Your task to perform on an android device: allow notifications from all sites in the chrome app Image 0: 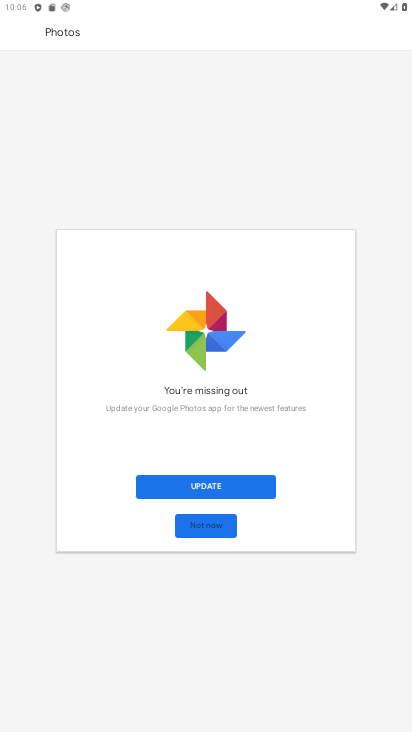
Step 0: press home button
Your task to perform on an android device: allow notifications from all sites in the chrome app Image 1: 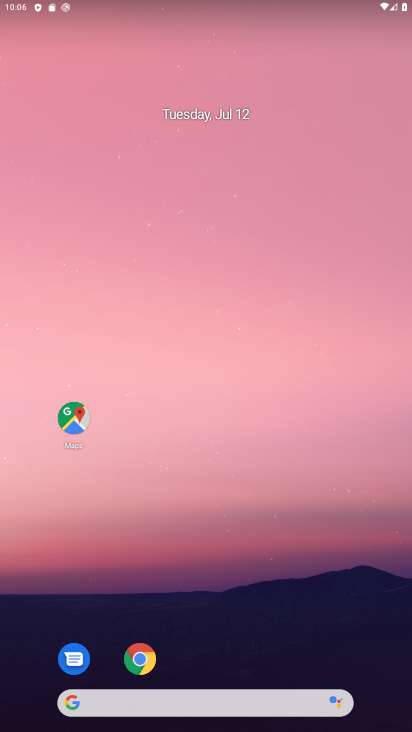
Step 1: click (254, 131)
Your task to perform on an android device: allow notifications from all sites in the chrome app Image 2: 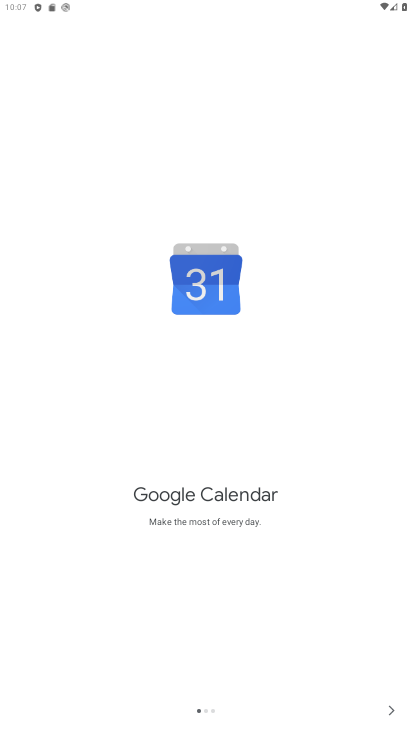
Step 2: press home button
Your task to perform on an android device: allow notifications from all sites in the chrome app Image 3: 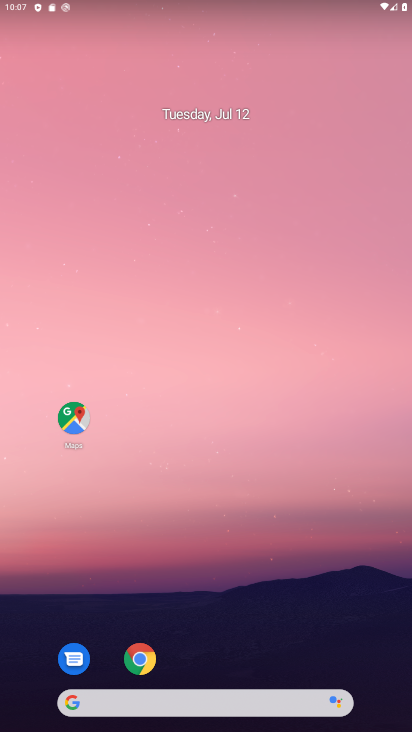
Step 3: click (137, 662)
Your task to perform on an android device: allow notifications from all sites in the chrome app Image 4: 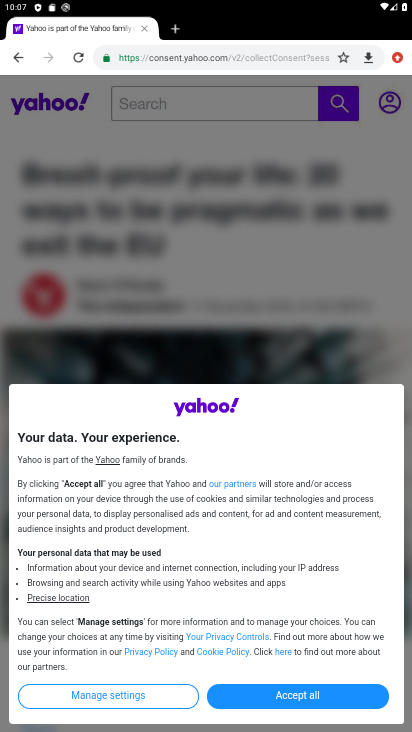
Step 4: click (396, 61)
Your task to perform on an android device: allow notifications from all sites in the chrome app Image 5: 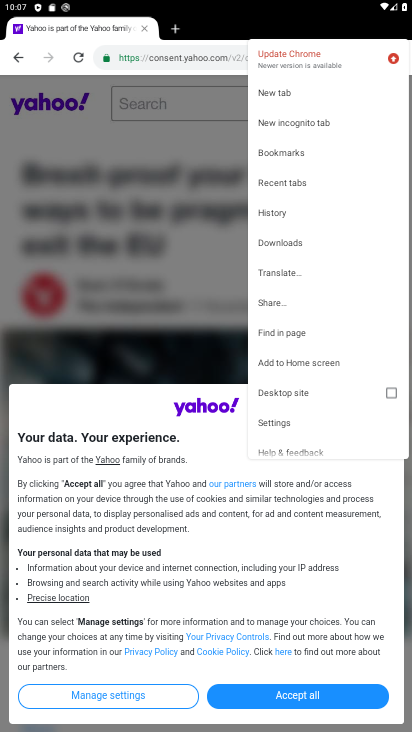
Step 5: click (268, 418)
Your task to perform on an android device: allow notifications from all sites in the chrome app Image 6: 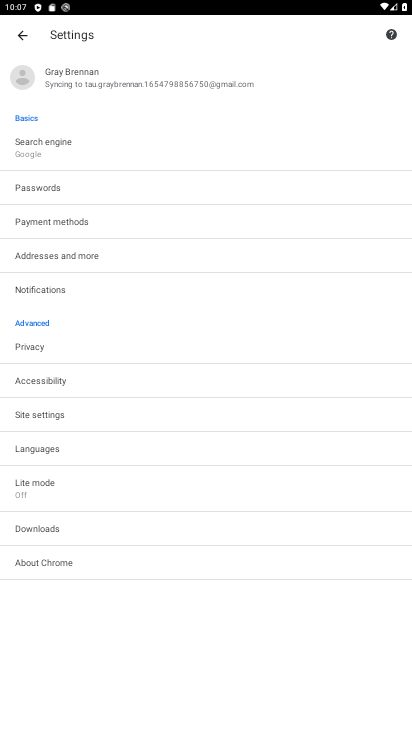
Step 6: click (48, 418)
Your task to perform on an android device: allow notifications from all sites in the chrome app Image 7: 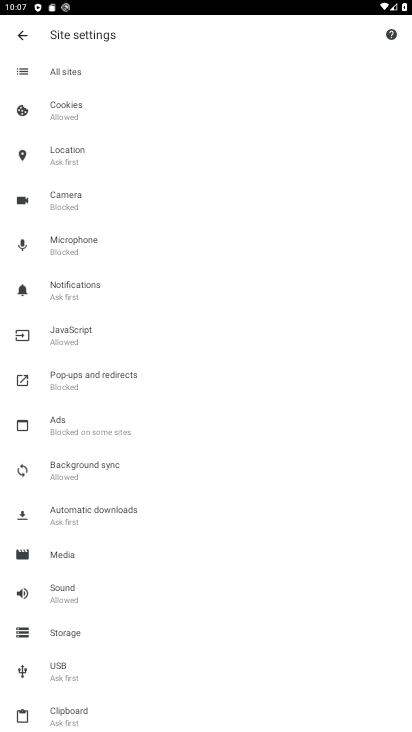
Step 7: click (61, 291)
Your task to perform on an android device: allow notifications from all sites in the chrome app Image 8: 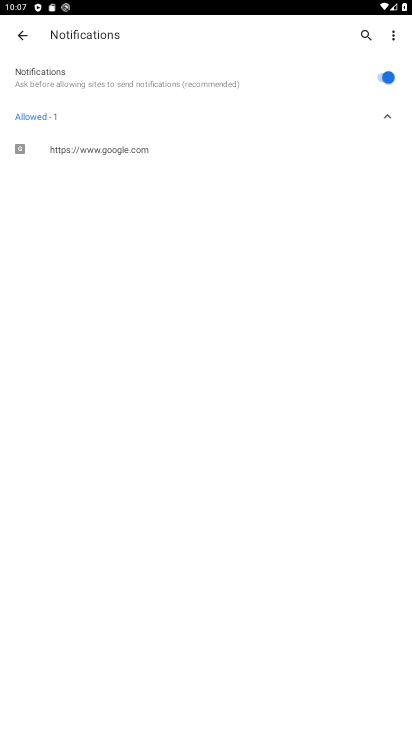
Step 8: click (23, 37)
Your task to perform on an android device: allow notifications from all sites in the chrome app Image 9: 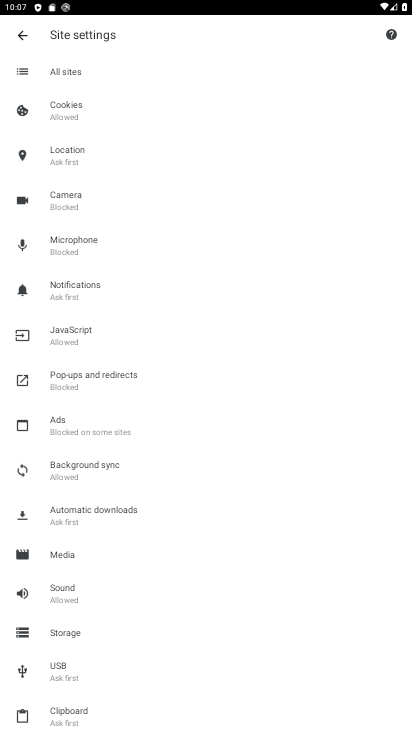
Step 9: click (74, 71)
Your task to perform on an android device: allow notifications from all sites in the chrome app Image 10: 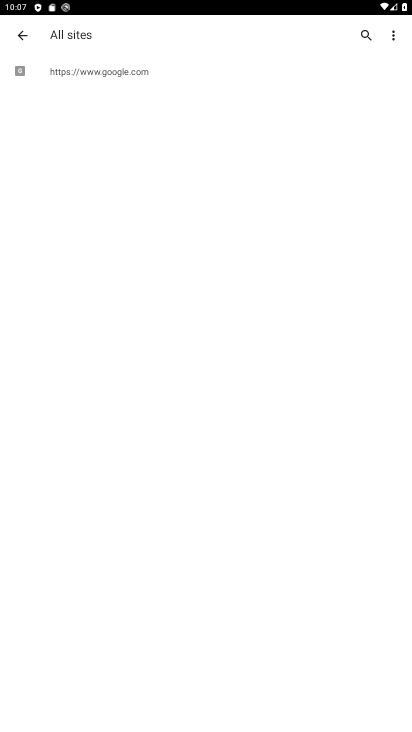
Step 10: click (102, 62)
Your task to perform on an android device: allow notifications from all sites in the chrome app Image 11: 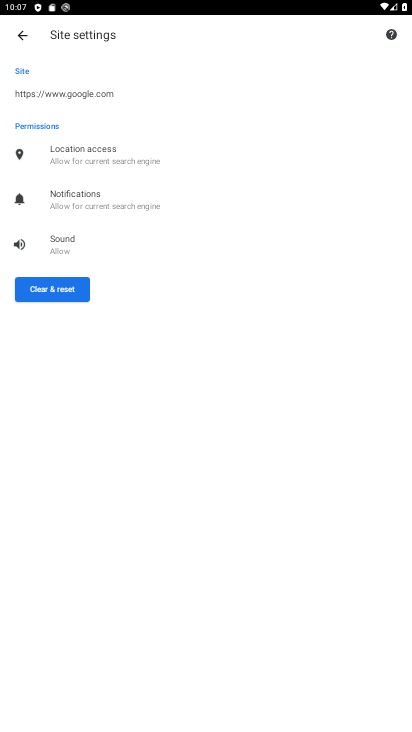
Step 11: click (68, 192)
Your task to perform on an android device: allow notifications from all sites in the chrome app Image 12: 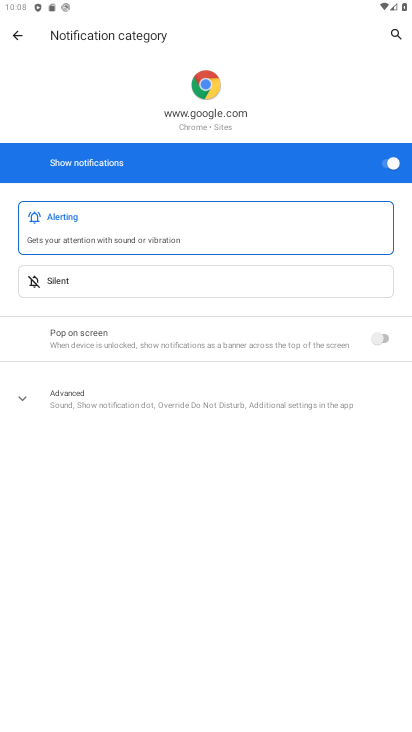
Step 12: task complete